Your task to perform on an android device: check google app version Image 0: 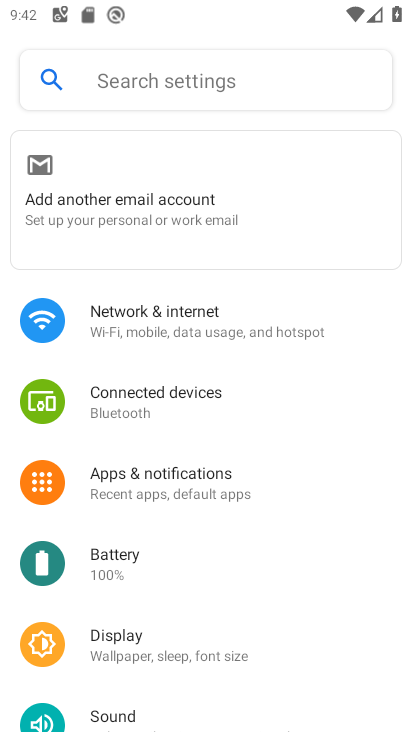
Step 0: press home button
Your task to perform on an android device: check google app version Image 1: 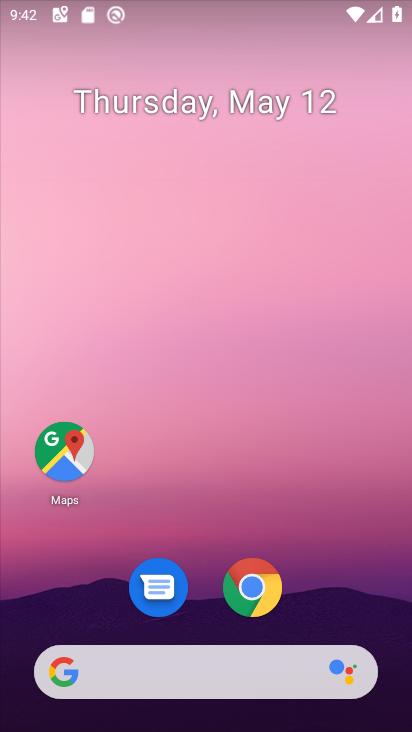
Step 1: drag from (377, 643) to (293, 221)
Your task to perform on an android device: check google app version Image 2: 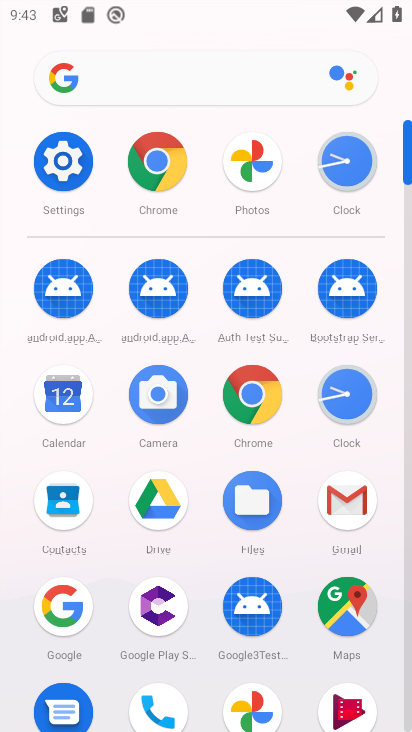
Step 2: click (74, 611)
Your task to perform on an android device: check google app version Image 3: 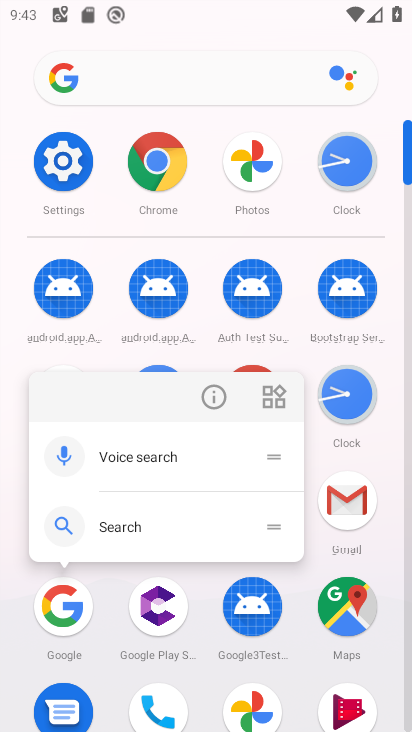
Step 3: click (206, 391)
Your task to perform on an android device: check google app version Image 4: 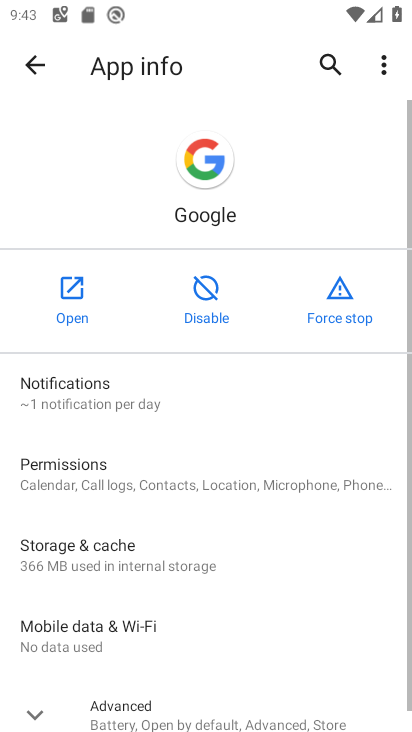
Step 4: drag from (196, 623) to (163, 61)
Your task to perform on an android device: check google app version Image 5: 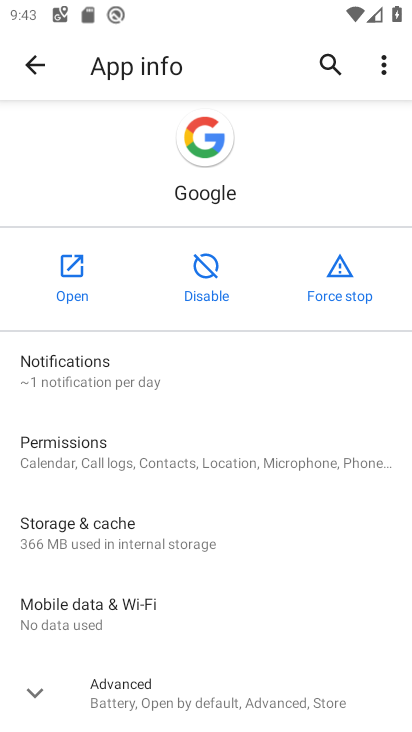
Step 5: click (28, 692)
Your task to perform on an android device: check google app version Image 6: 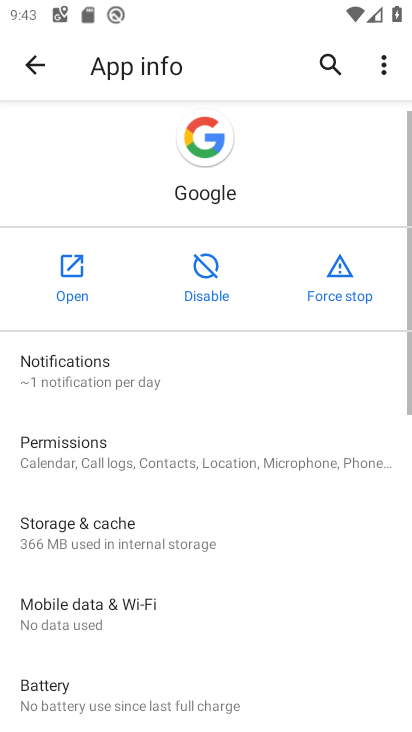
Step 6: task complete